Your task to perform on an android device: uninstall "Google Calendar" Image 0: 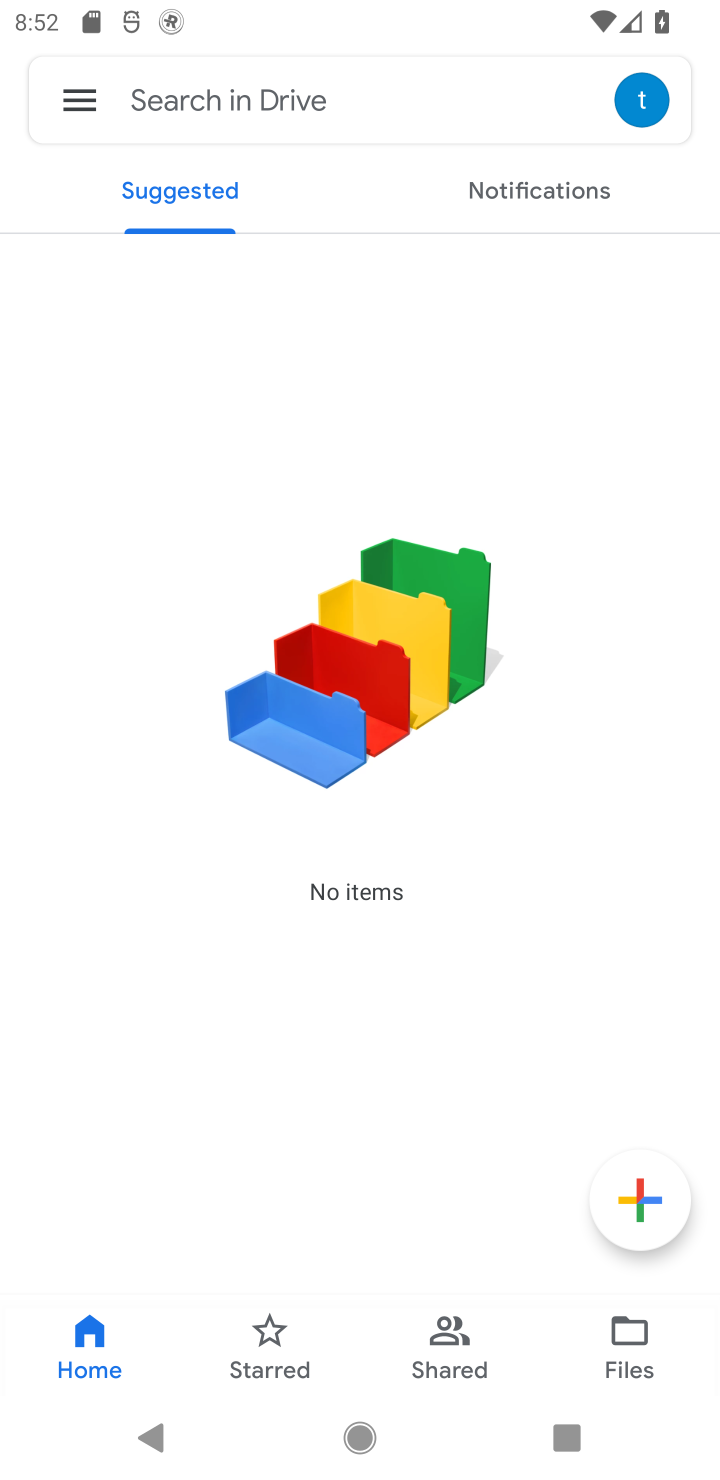
Step 0: press back button
Your task to perform on an android device: uninstall "Google Calendar" Image 1: 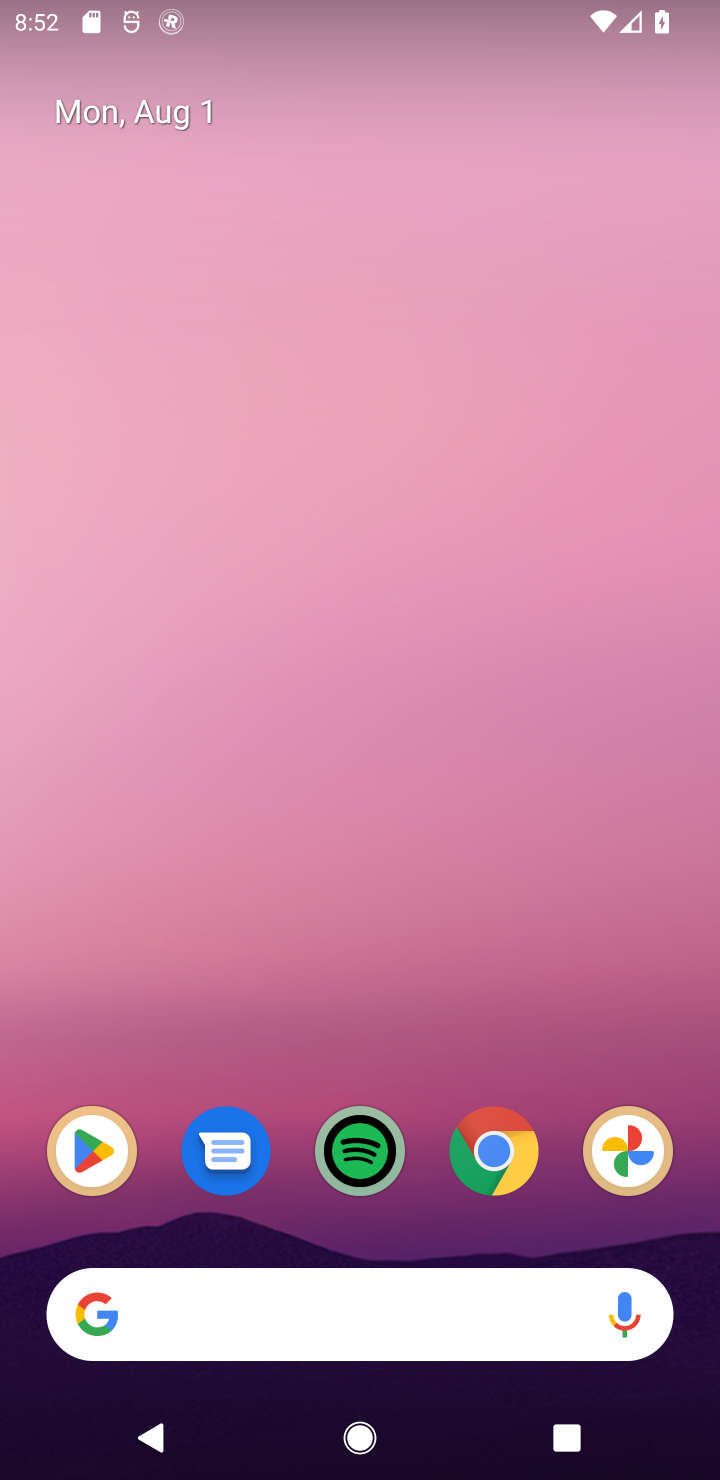
Step 1: click (118, 1148)
Your task to perform on an android device: uninstall "Google Calendar" Image 2: 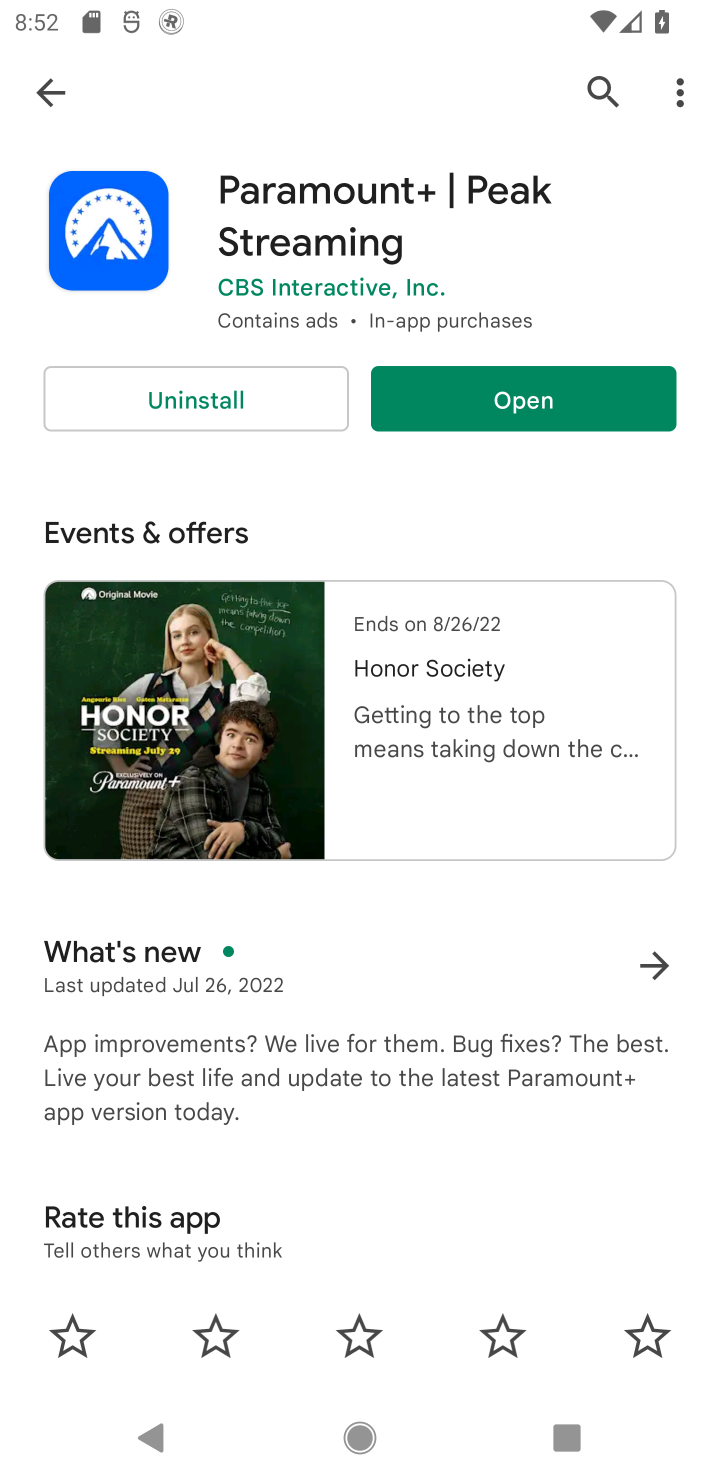
Step 2: click (594, 78)
Your task to perform on an android device: uninstall "Google Calendar" Image 3: 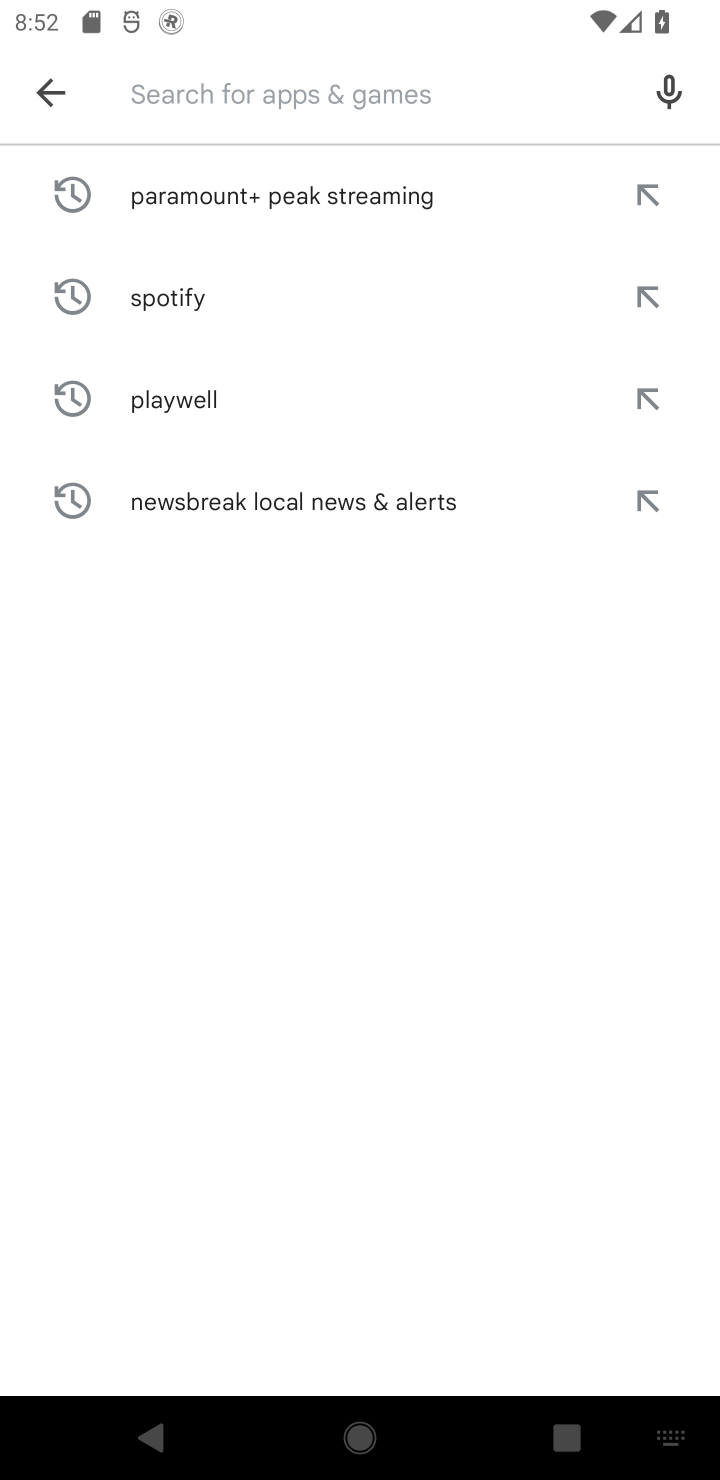
Step 3: type "Google Calendar"
Your task to perform on an android device: uninstall "Google Calendar" Image 4: 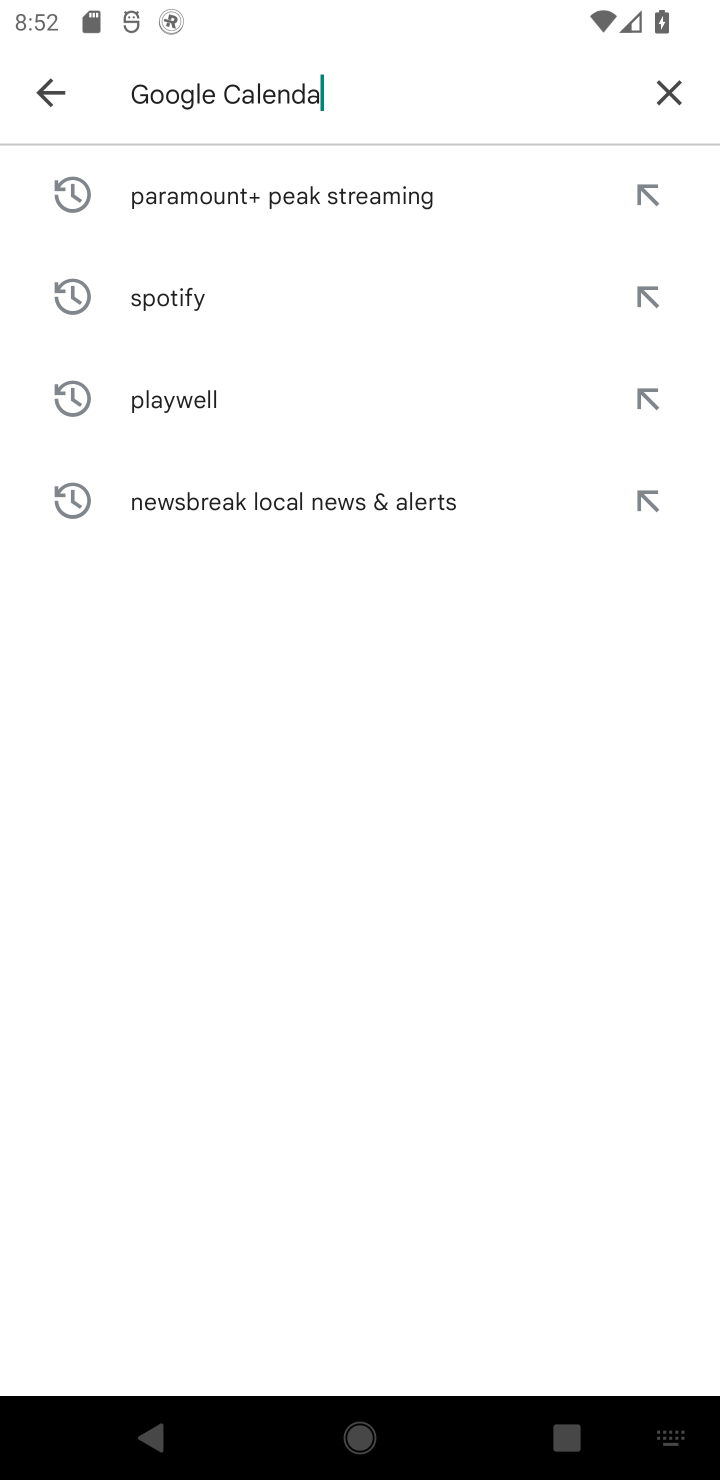
Step 4: type ""
Your task to perform on an android device: uninstall "Google Calendar" Image 5: 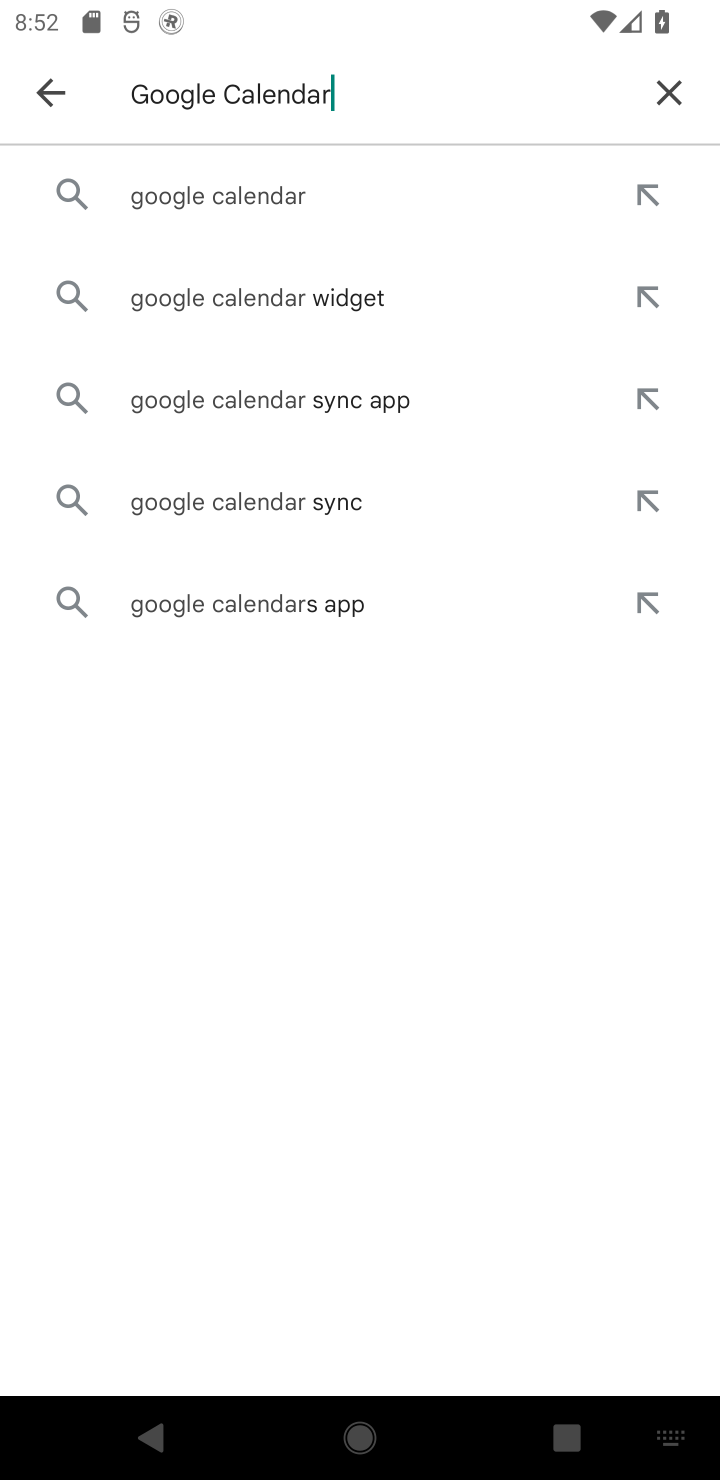
Step 5: click (363, 183)
Your task to perform on an android device: uninstall "Google Calendar" Image 6: 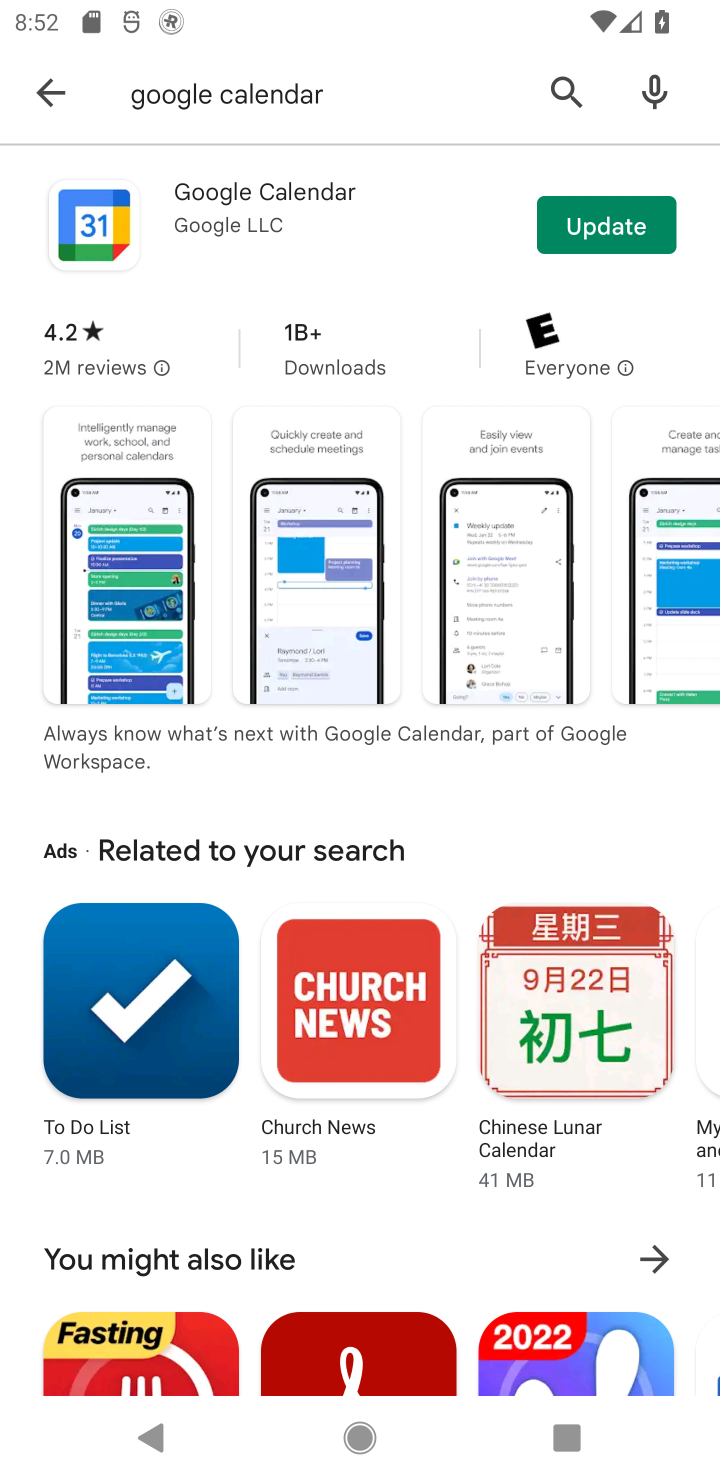
Step 6: click (626, 238)
Your task to perform on an android device: uninstall "Google Calendar" Image 7: 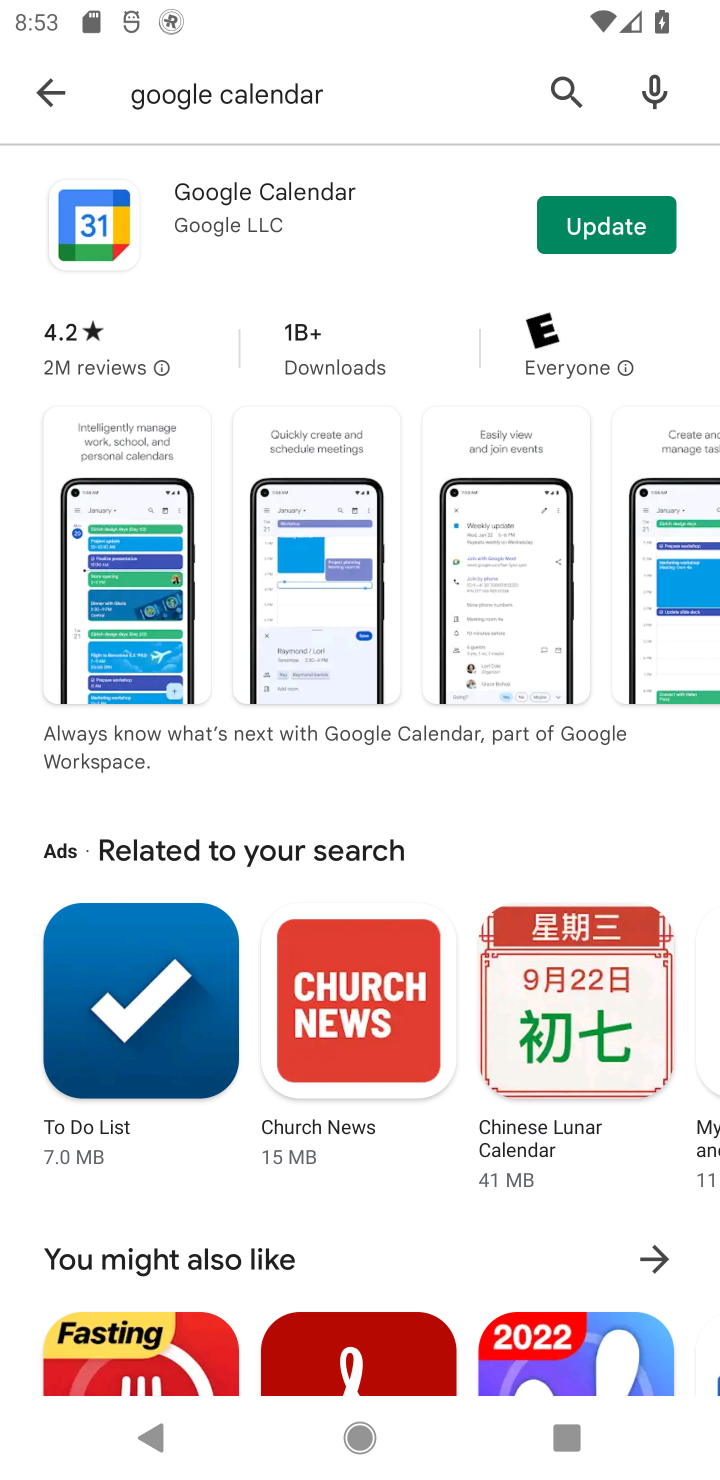
Step 7: click (351, 228)
Your task to perform on an android device: uninstall "Google Calendar" Image 8: 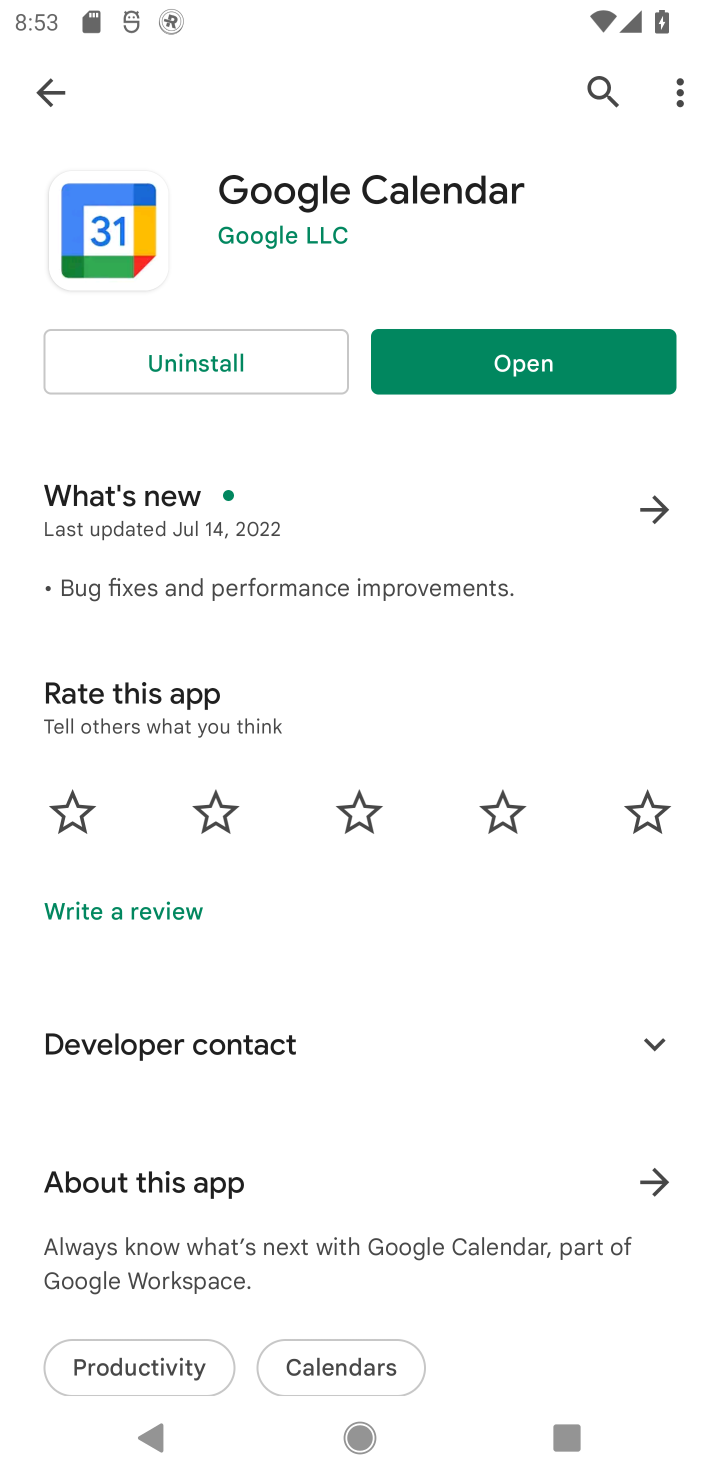
Step 8: click (241, 360)
Your task to perform on an android device: uninstall "Google Calendar" Image 9: 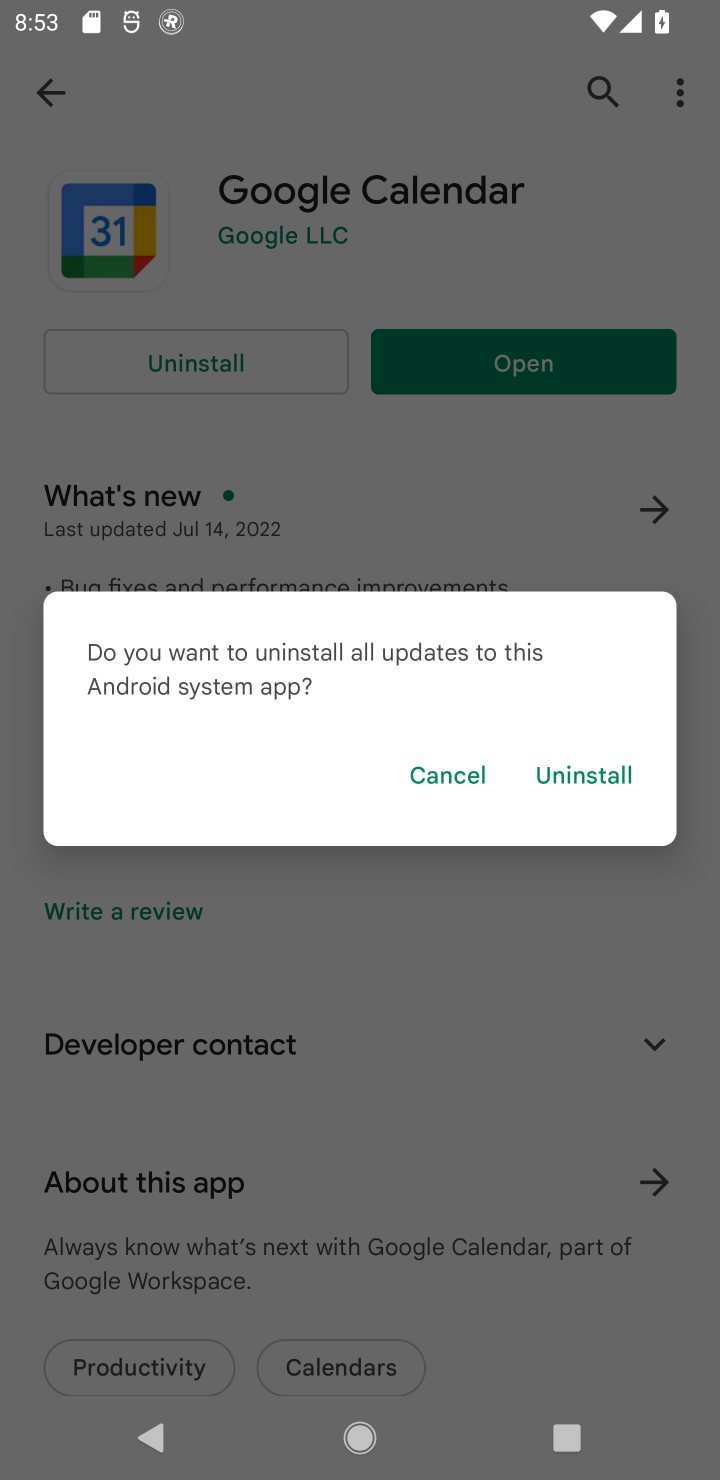
Step 9: click (565, 794)
Your task to perform on an android device: uninstall "Google Calendar" Image 10: 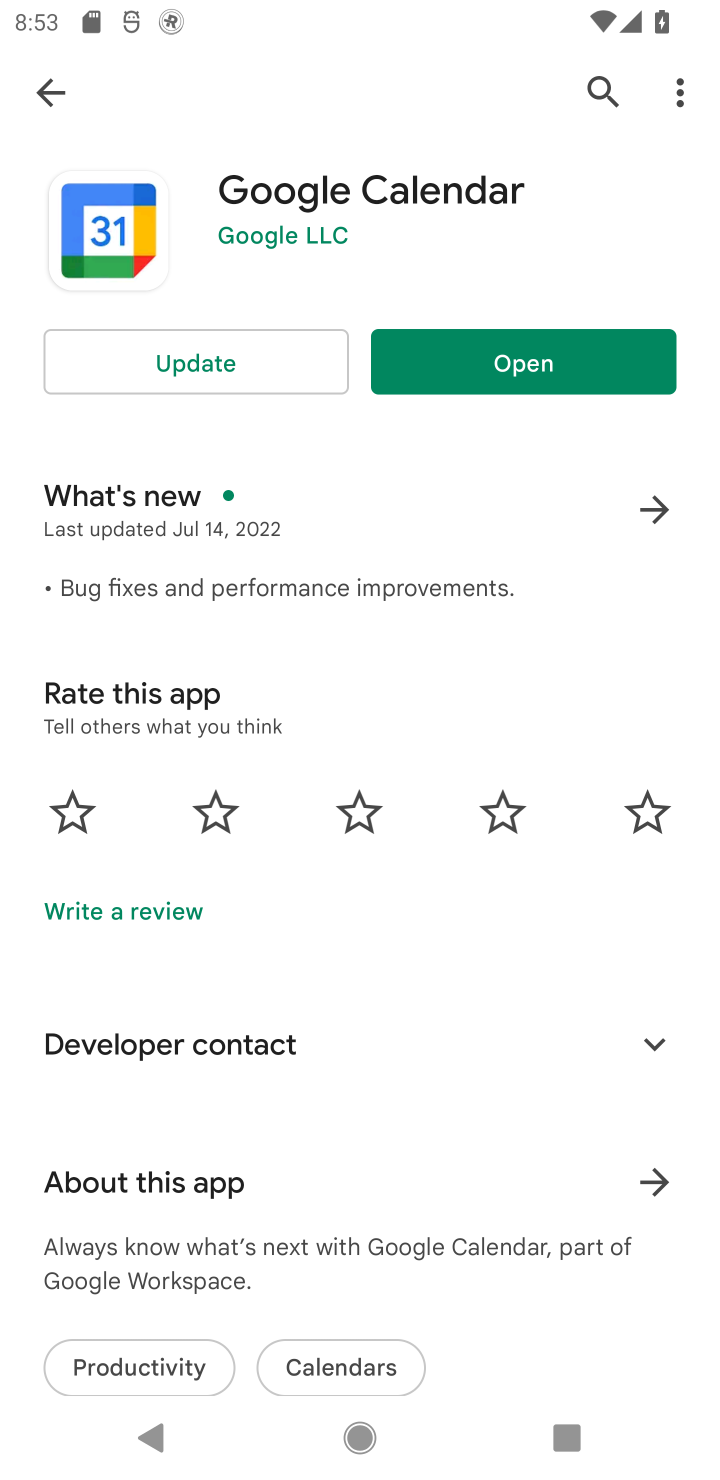
Step 10: task complete